Your task to perform on an android device: toggle notification dots Image 0: 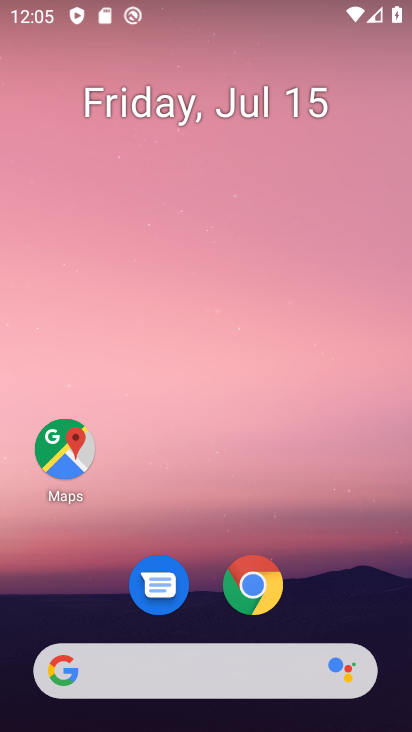
Step 0: drag from (211, 501) to (320, 26)
Your task to perform on an android device: toggle notification dots Image 1: 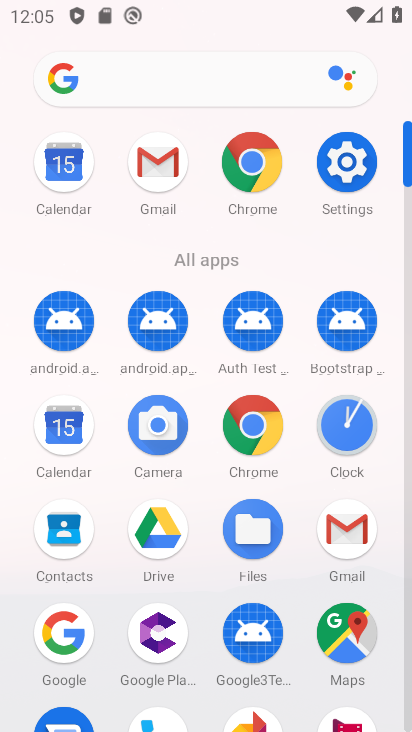
Step 1: click (347, 169)
Your task to perform on an android device: toggle notification dots Image 2: 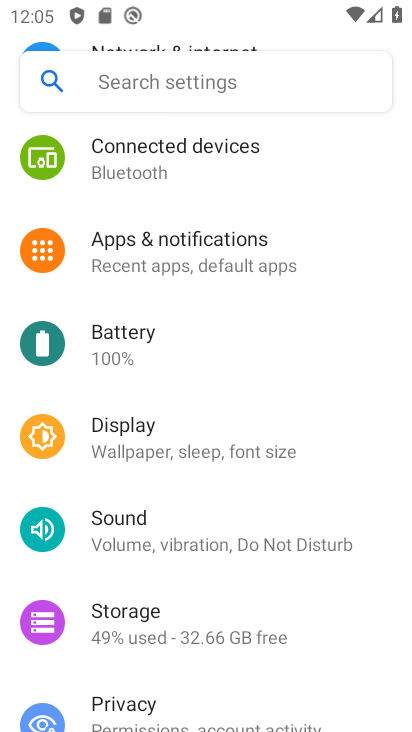
Step 2: click (240, 246)
Your task to perform on an android device: toggle notification dots Image 3: 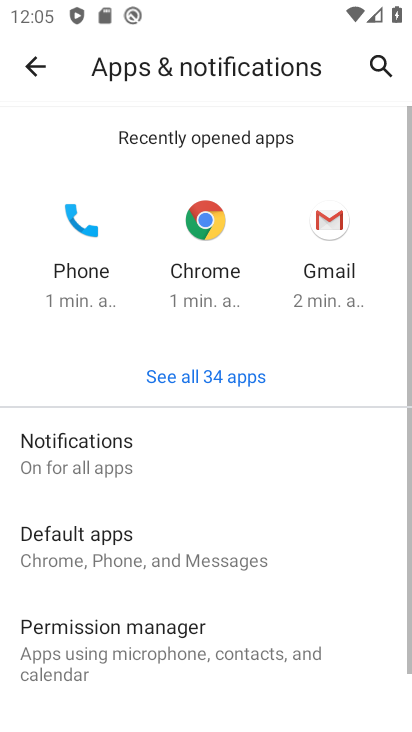
Step 3: drag from (206, 616) to (209, 223)
Your task to perform on an android device: toggle notification dots Image 4: 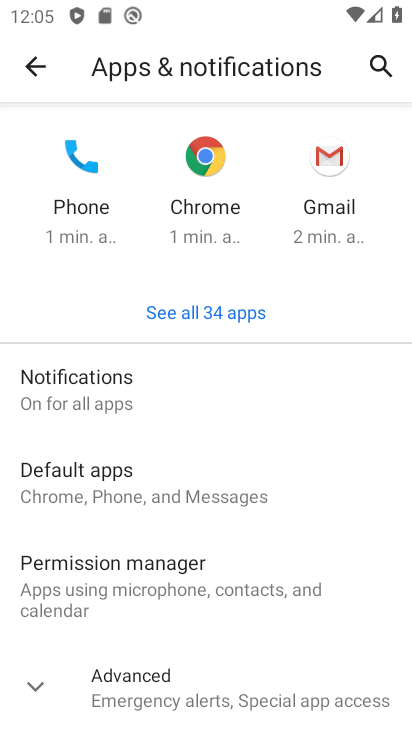
Step 4: click (105, 410)
Your task to perform on an android device: toggle notification dots Image 5: 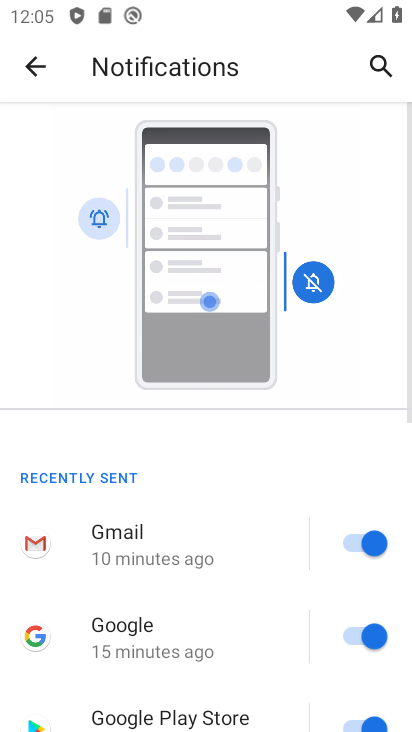
Step 5: drag from (263, 621) to (265, 95)
Your task to perform on an android device: toggle notification dots Image 6: 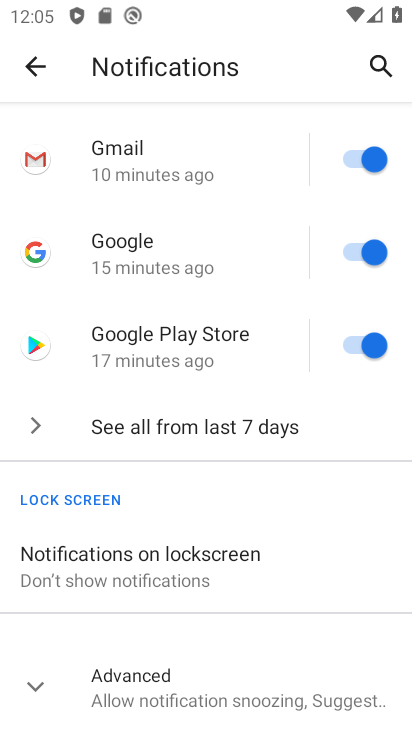
Step 6: click (38, 683)
Your task to perform on an android device: toggle notification dots Image 7: 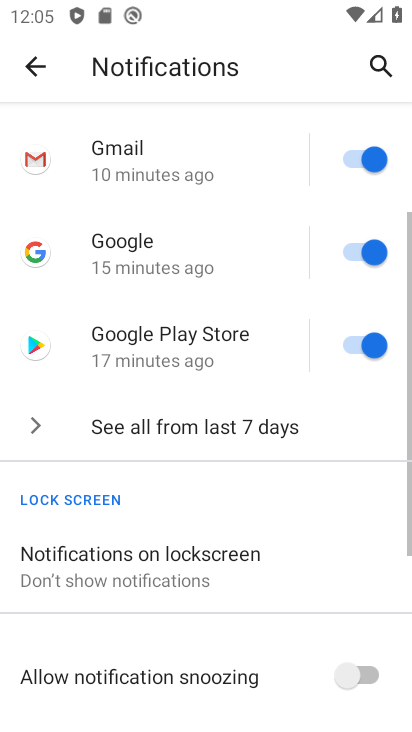
Step 7: drag from (289, 524) to (285, 3)
Your task to perform on an android device: toggle notification dots Image 8: 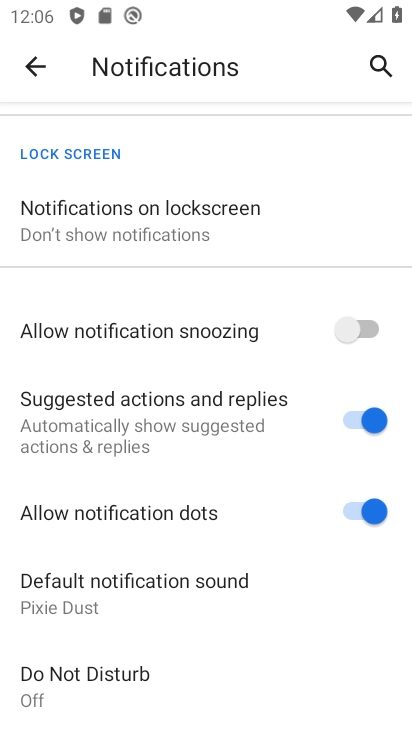
Step 8: click (357, 515)
Your task to perform on an android device: toggle notification dots Image 9: 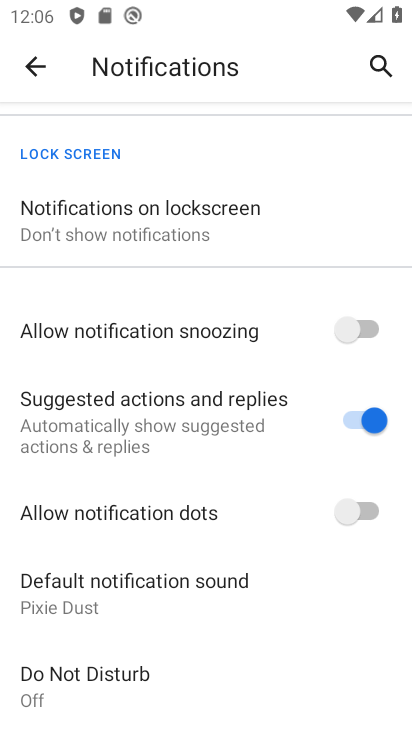
Step 9: task complete